Your task to perform on an android device: turn off smart reply in the gmail app Image 0: 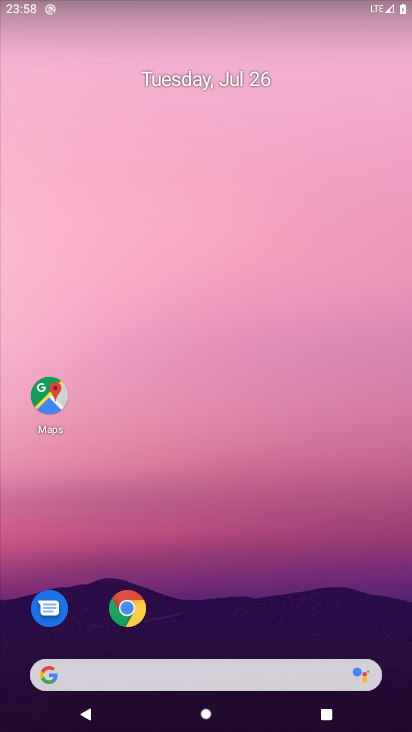
Step 0: press home button
Your task to perform on an android device: turn off smart reply in the gmail app Image 1: 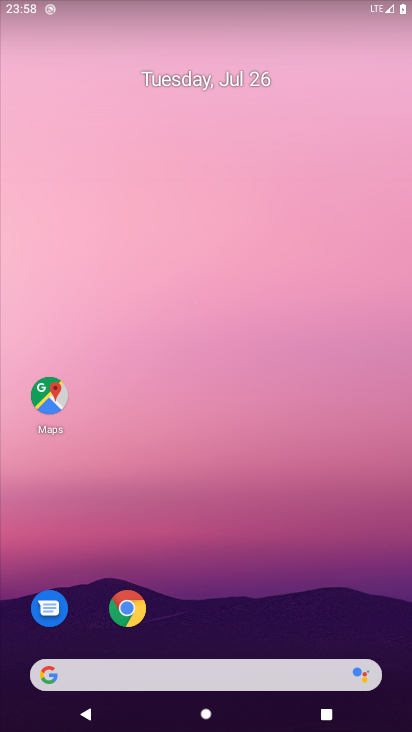
Step 1: drag from (296, 632) to (327, 211)
Your task to perform on an android device: turn off smart reply in the gmail app Image 2: 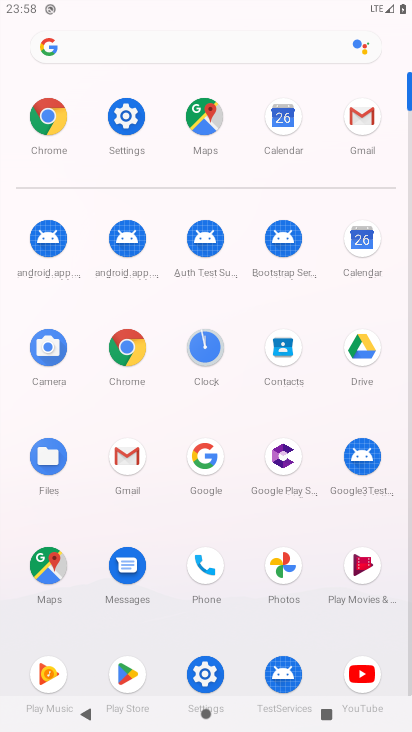
Step 2: click (367, 114)
Your task to perform on an android device: turn off smart reply in the gmail app Image 3: 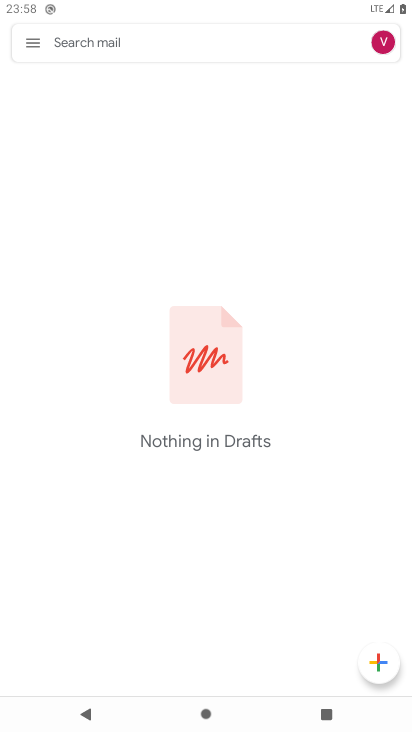
Step 3: click (29, 41)
Your task to perform on an android device: turn off smart reply in the gmail app Image 4: 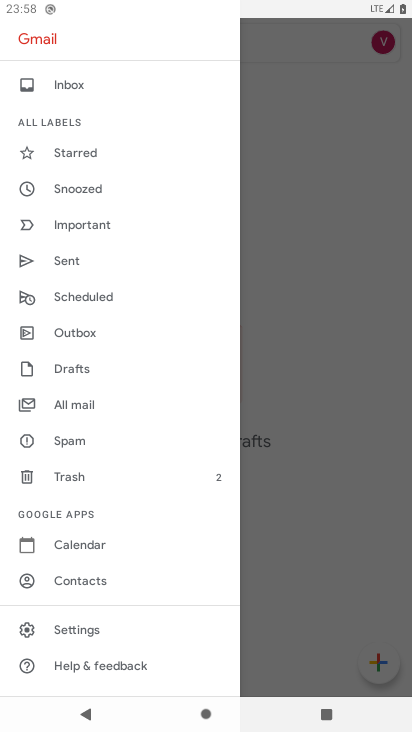
Step 4: click (82, 622)
Your task to perform on an android device: turn off smart reply in the gmail app Image 5: 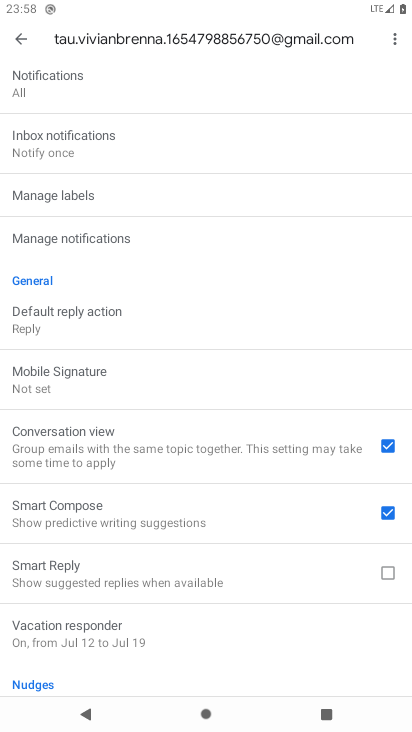
Step 5: task complete